Your task to perform on an android device: Go to settings Image 0: 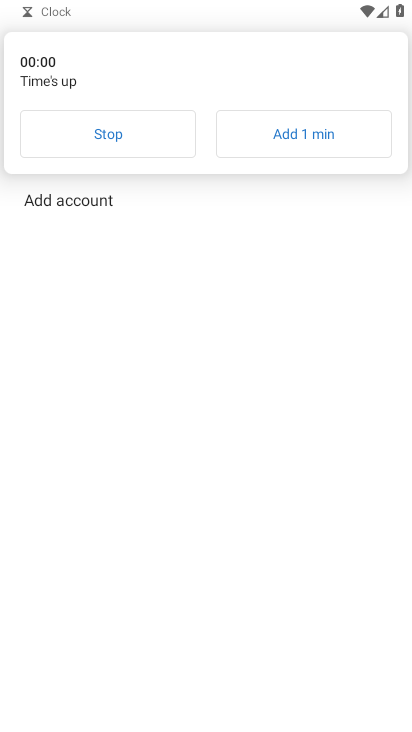
Step 0: press home button
Your task to perform on an android device: Go to settings Image 1: 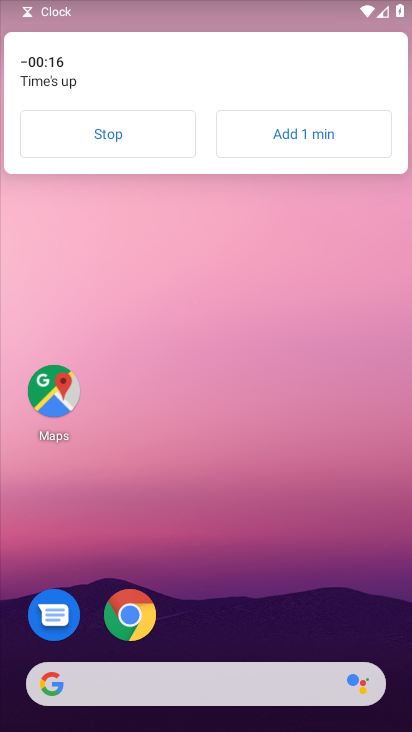
Step 1: drag from (210, 655) to (196, 100)
Your task to perform on an android device: Go to settings Image 2: 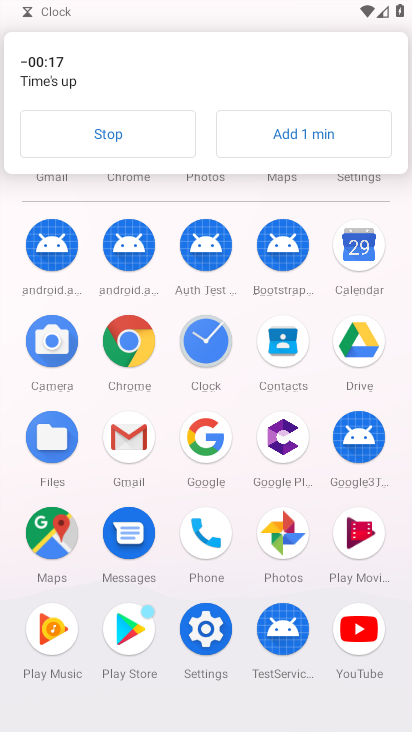
Step 2: click (128, 124)
Your task to perform on an android device: Go to settings Image 3: 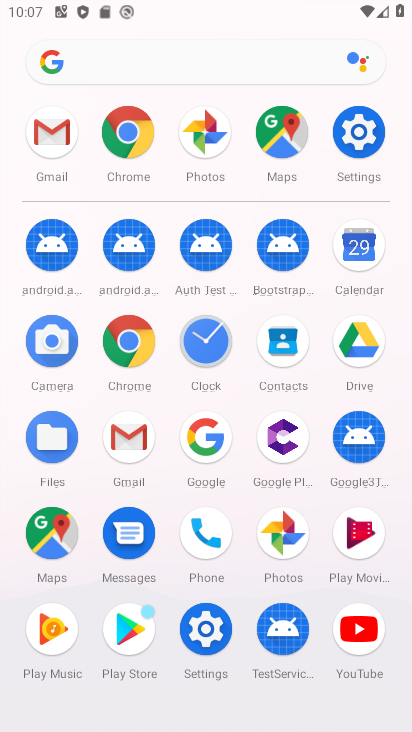
Step 3: click (355, 125)
Your task to perform on an android device: Go to settings Image 4: 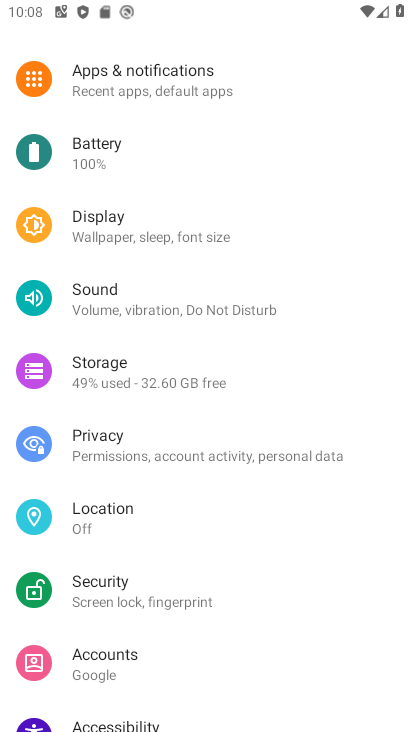
Step 4: task complete